Your task to perform on an android device: change the clock display to show seconds Image 0: 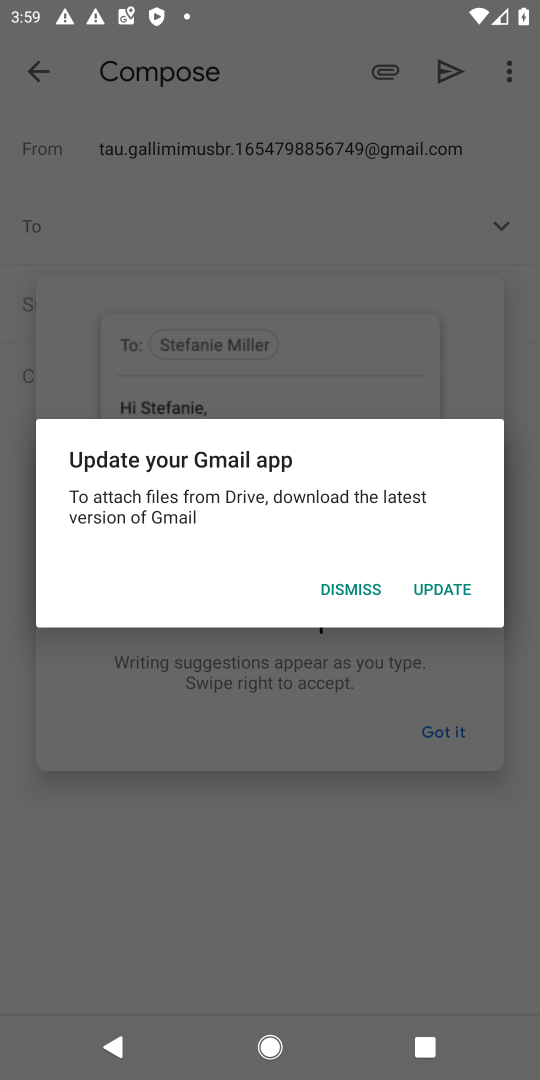
Step 0: press home button
Your task to perform on an android device: change the clock display to show seconds Image 1: 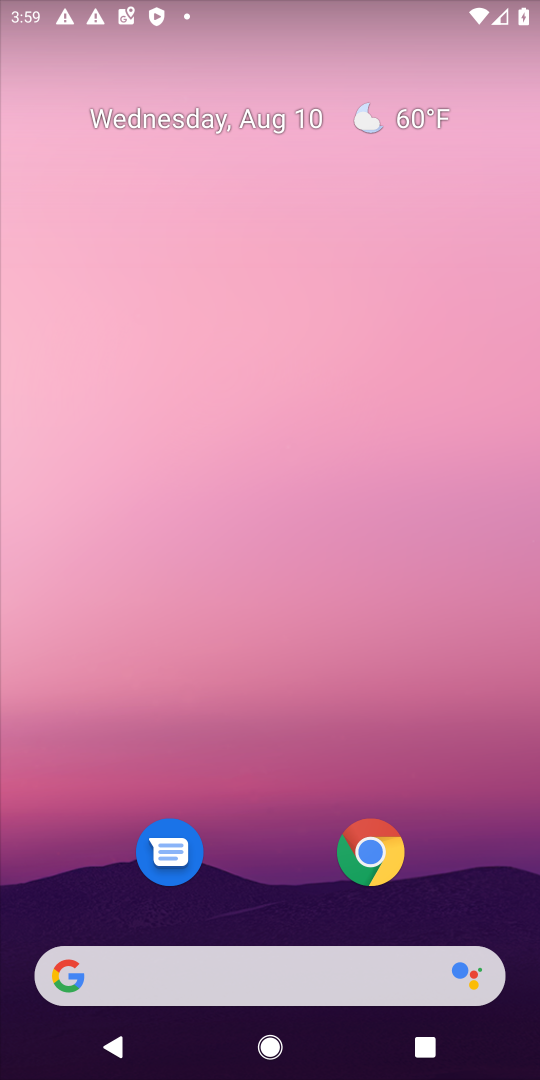
Step 1: drag from (296, 799) to (288, 172)
Your task to perform on an android device: change the clock display to show seconds Image 2: 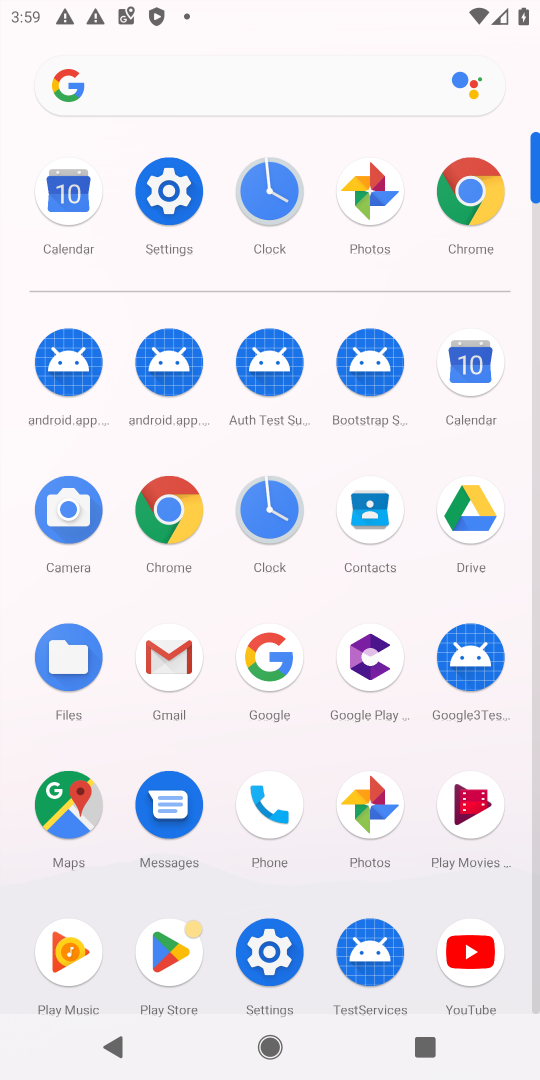
Step 2: click (283, 483)
Your task to perform on an android device: change the clock display to show seconds Image 3: 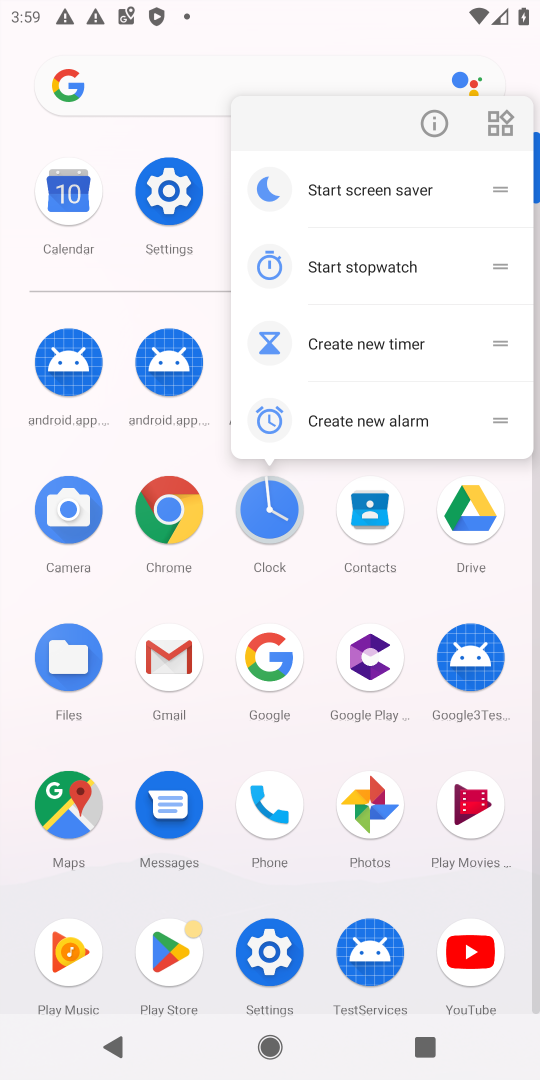
Step 3: click (268, 496)
Your task to perform on an android device: change the clock display to show seconds Image 4: 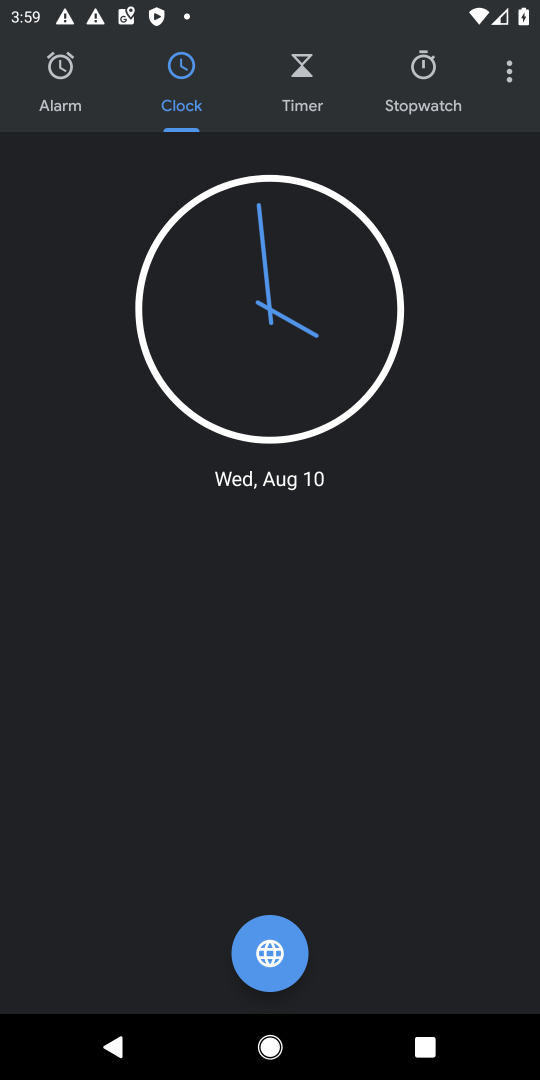
Step 4: click (503, 72)
Your task to perform on an android device: change the clock display to show seconds Image 5: 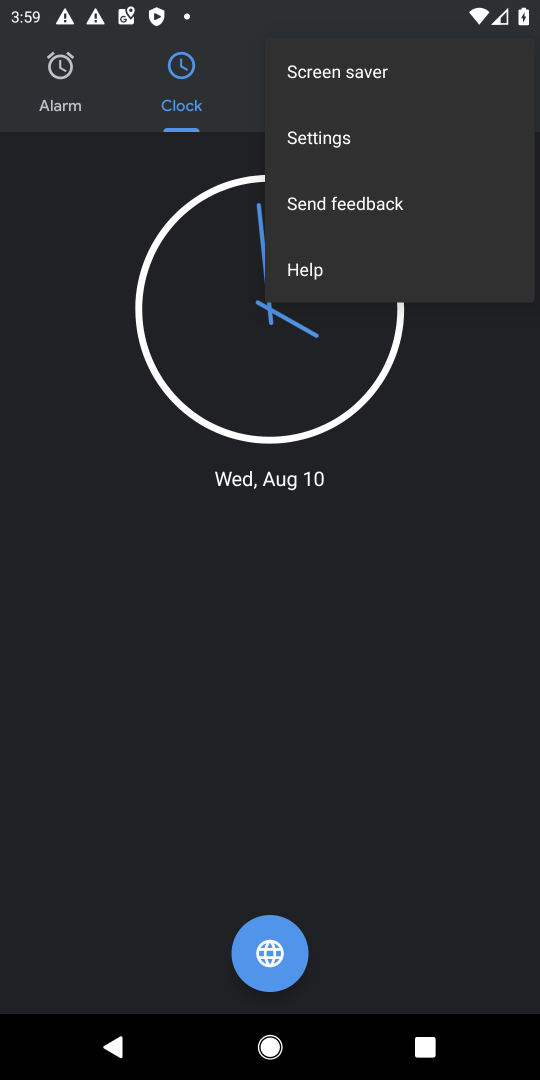
Step 5: click (366, 153)
Your task to perform on an android device: change the clock display to show seconds Image 6: 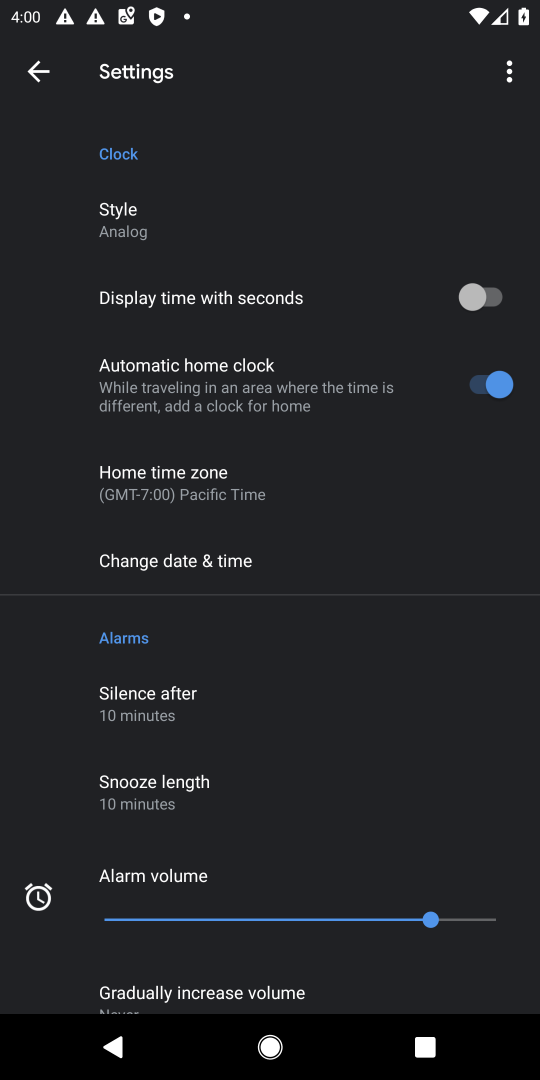
Step 6: click (472, 295)
Your task to perform on an android device: change the clock display to show seconds Image 7: 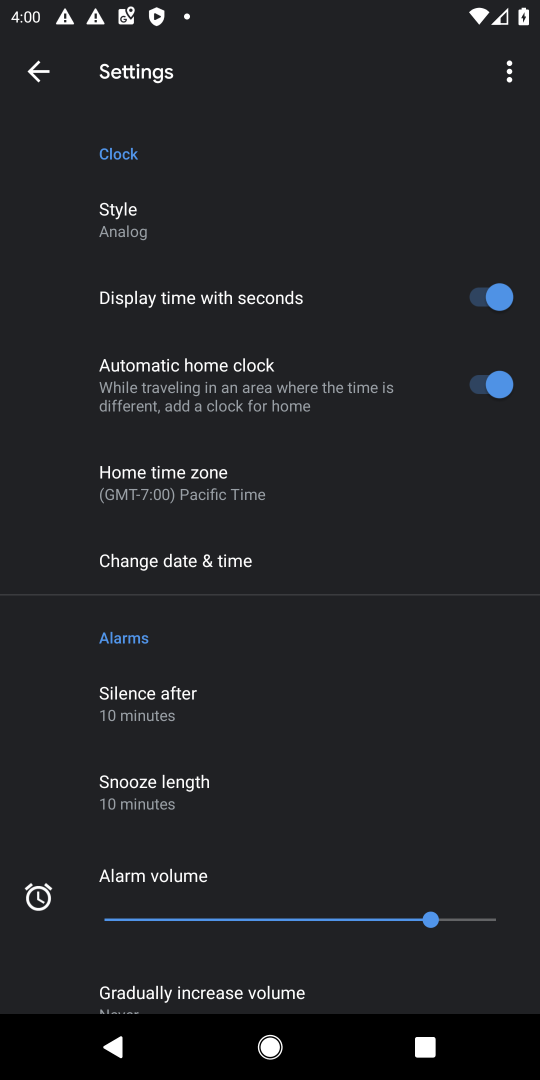
Step 7: task complete